Your task to perform on an android device: Open CNN.com Image 0: 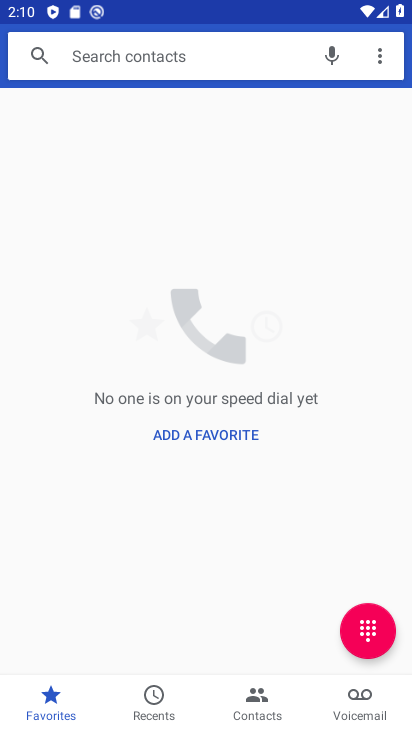
Step 0: press back button
Your task to perform on an android device: Open CNN.com Image 1: 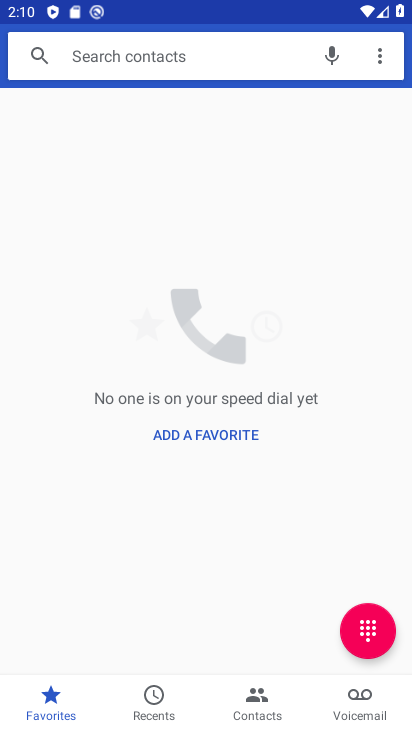
Step 1: press back button
Your task to perform on an android device: Open CNN.com Image 2: 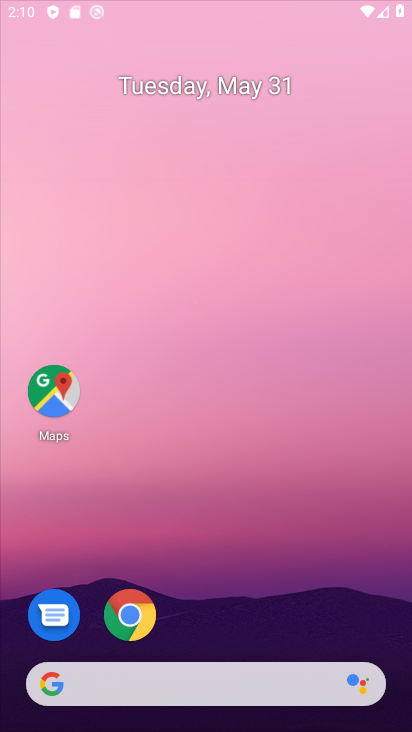
Step 2: press back button
Your task to perform on an android device: Open CNN.com Image 3: 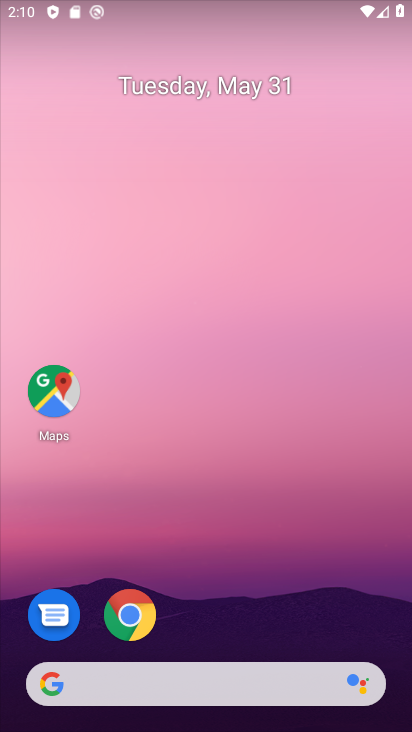
Step 3: press back button
Your task to perform on an android device: Open CNN.com Image 4: 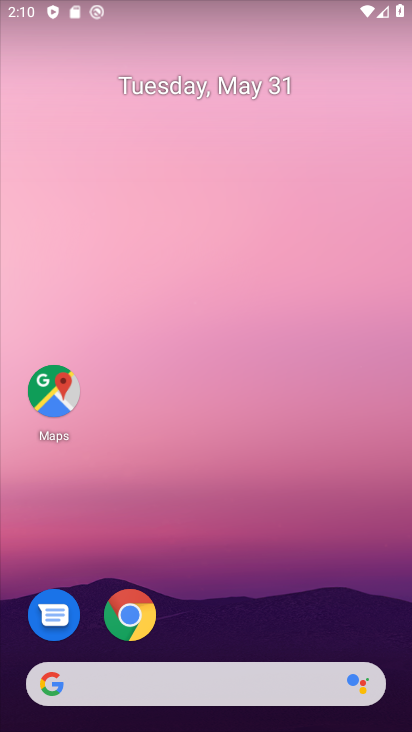
Step 4: drag from (227, 642) to (230, 186)
Your task to perform on an android device: Open CNN.com Image 5: 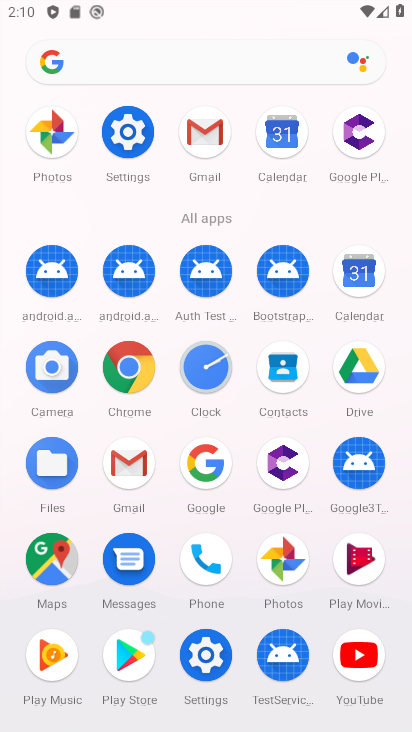
Step 5: click (135, 375)
Your task to perform on an android device: Open CNN.com Image 6: 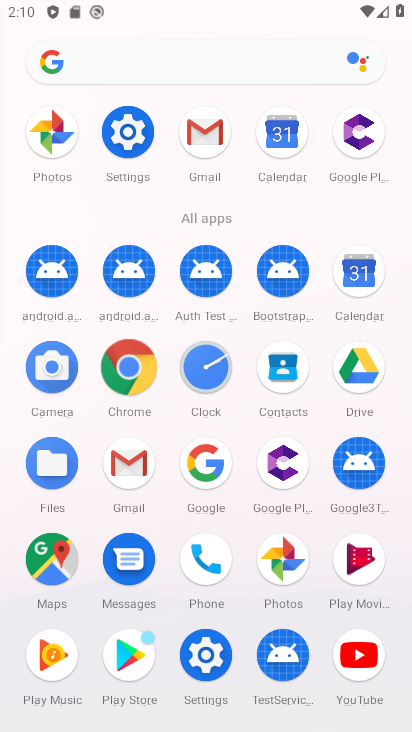
Step 6: click (135, 377)
Your task to perform on an android device: Open CNN.com Image 7: 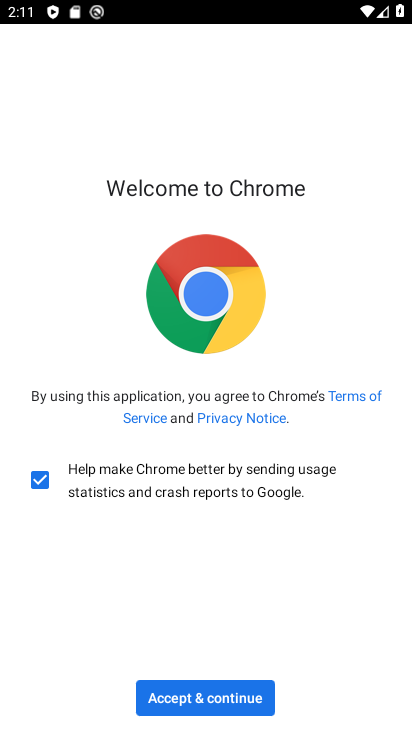
Step 7: click (223, 689)
Your task to perform on an android device: Open CNN.com Image 8: 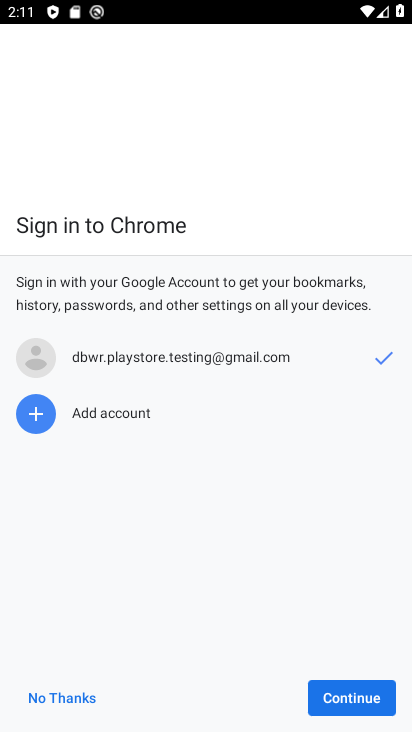
Step 8: click (349, 701)
Your task to perform on an android device: Open CNN.com Image 9: 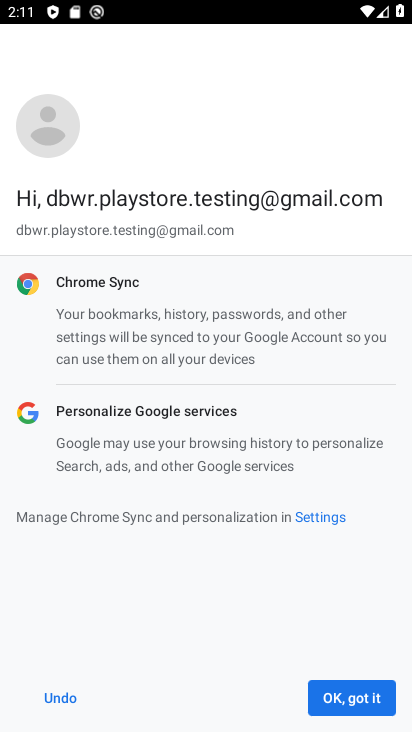
Step 9: click (353, 708)
Your task to perform on an android device: Open CNN.com Image 10: 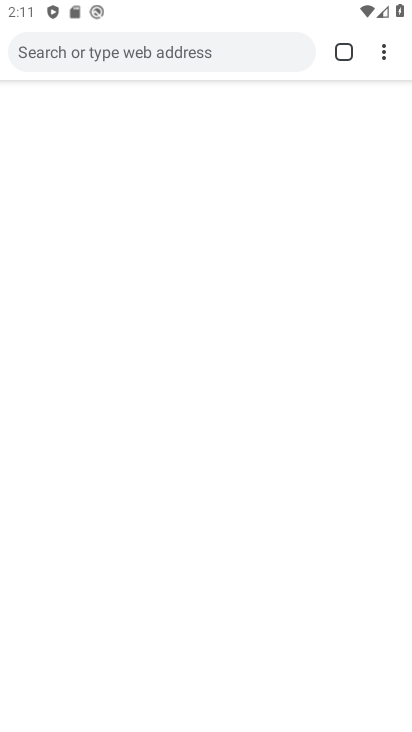
Step 10: click (355, 693)
Your task to perform on an android device: Open CNN.com Image 11: 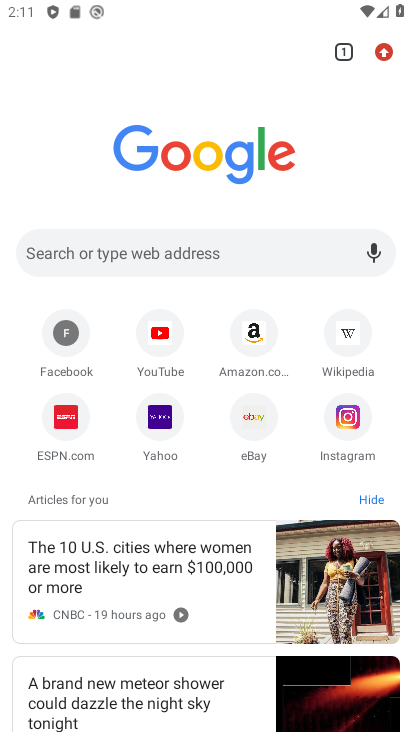
Step 11: click (79, 250)
Your task to perform on an android device: Open CNN.com Image 12: 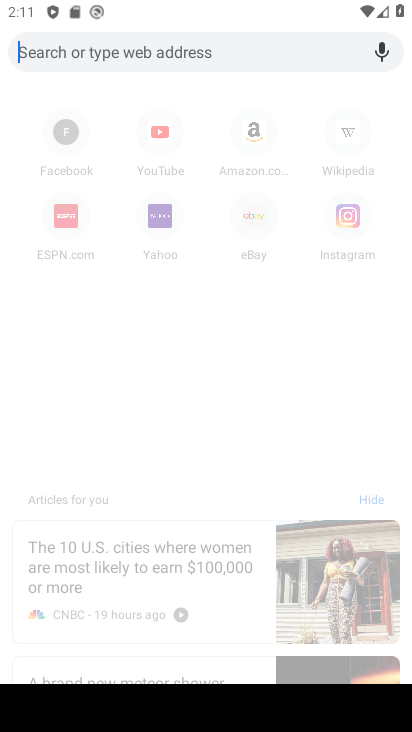
Step 12: type "cnn.com"
Your task to perform on an android device: Open CNN.com Image 13: 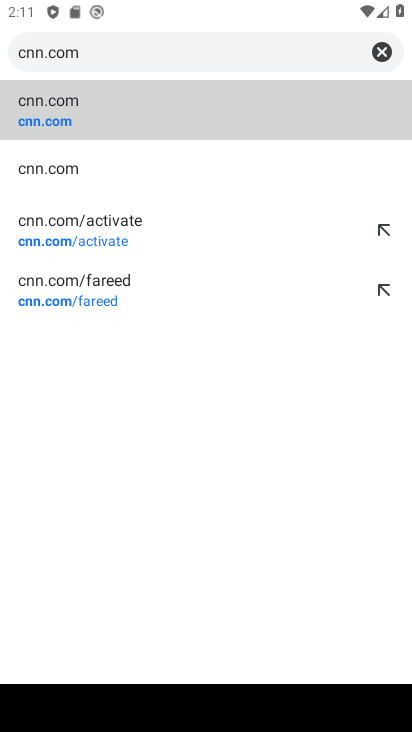
Step 13: click (58, 113)
Your task to perform on an android device: Open CNN.com Image 14: 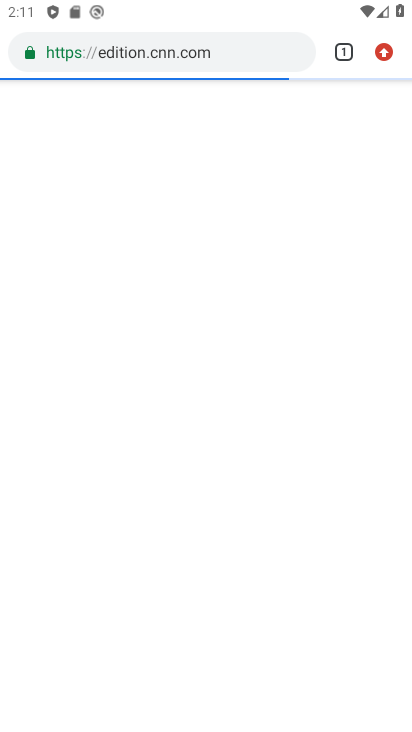
Step 14: task complete